Your task to perform on an android device: open chrome and create a bookmark for the current page Image 0: 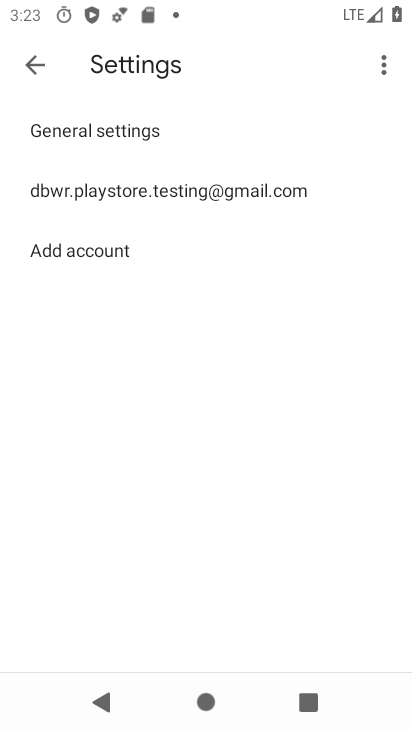
Step 0: press home button
Your task to perform on an android device: open chrome and create a bookmark for the current page Image 1: 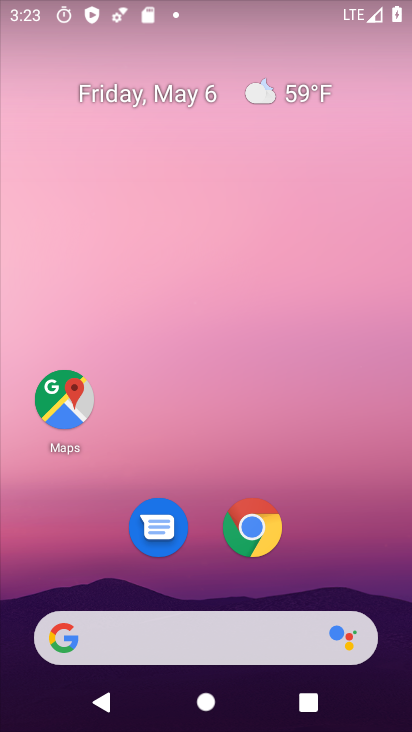
Step 1: click (272, 544)
Your task to perform on an android device: open chrome and create a bookmark for the current page Image 2: 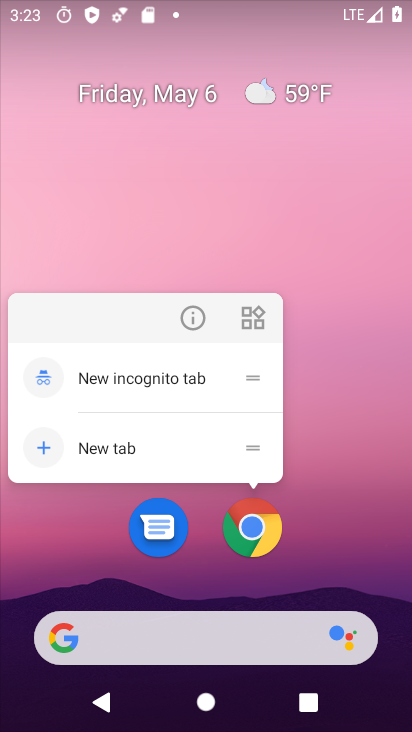
Step 2: click (264, 544)
Your task to perform on an android device: open chrome and create a bookmark for the current page Image 3: 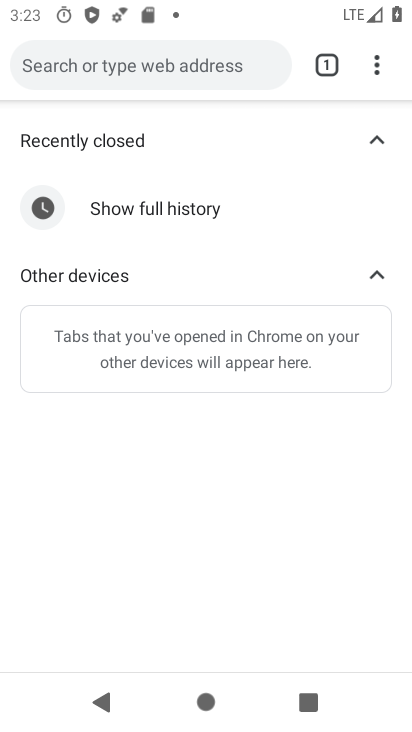
Step 3: click (373, 65)
Your task to perform on an android device: open chrome and create a bookmark for the current page Image 4: 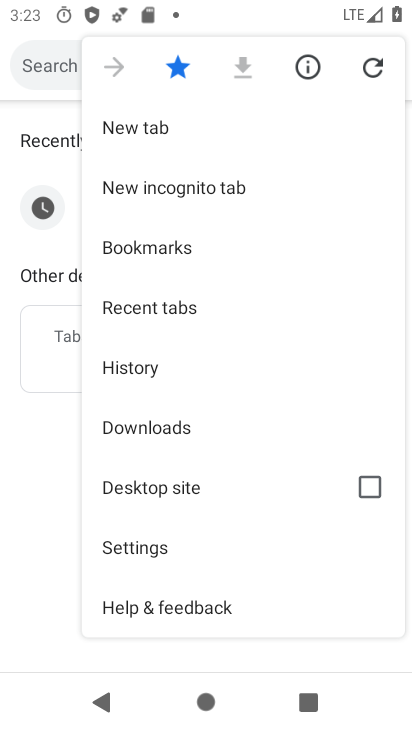
Step 4: task complete